Your task to perform on an android device: What is the news today? Image 0: 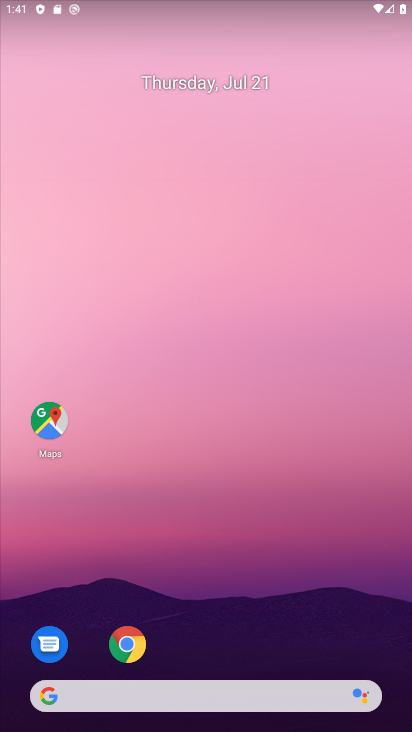
Step 0: click (217, 694)
Your task to perform on an android device: What is the news today? Image 1: 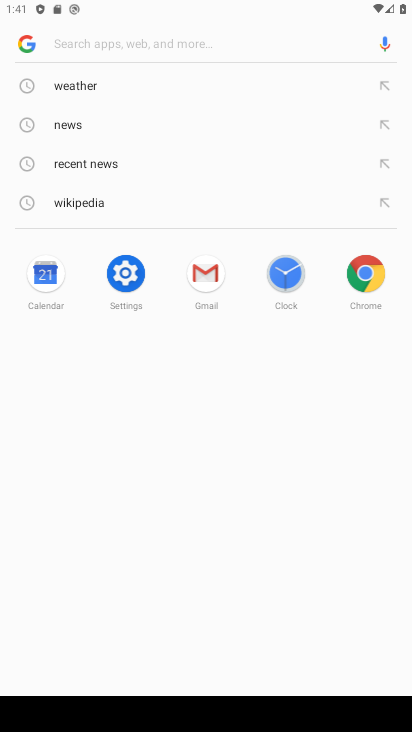
Step 1: type "what is the news today"
Your task to perform on an android device: What is the news today? Image 2: 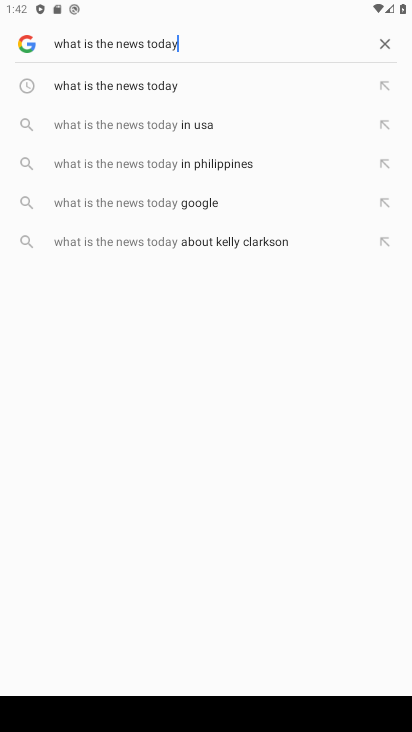
Step 2: click (191, 79)
Your task to perform on an android device: What is the news today? Image 3: 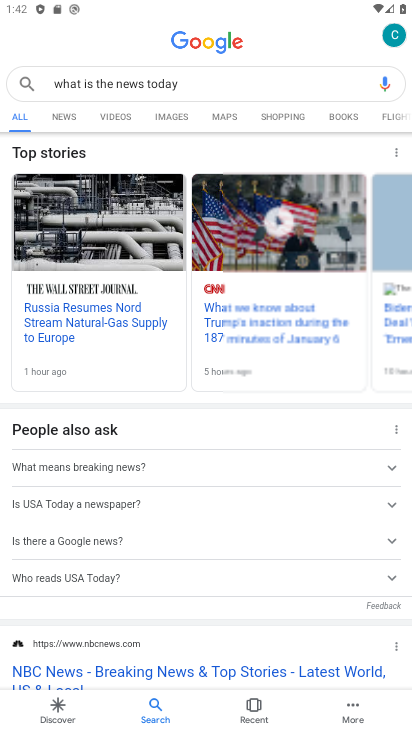
Step 3: click (62, 111)
Your task to perform on an android device: What is the news today? Image 4: 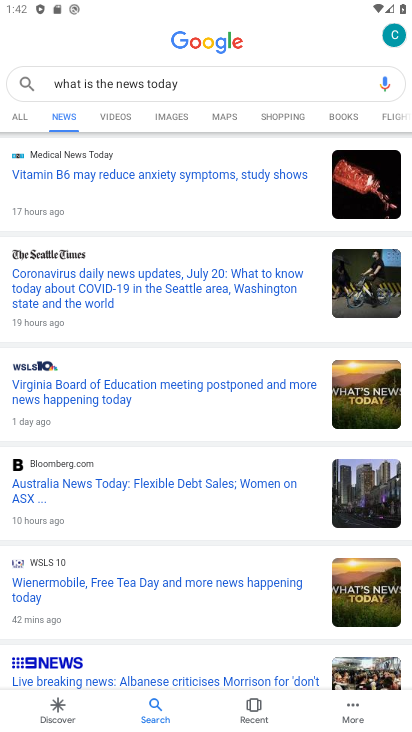
Step 4: task complete